Your task to perform on an android device: toggle sleep mode Image 0: 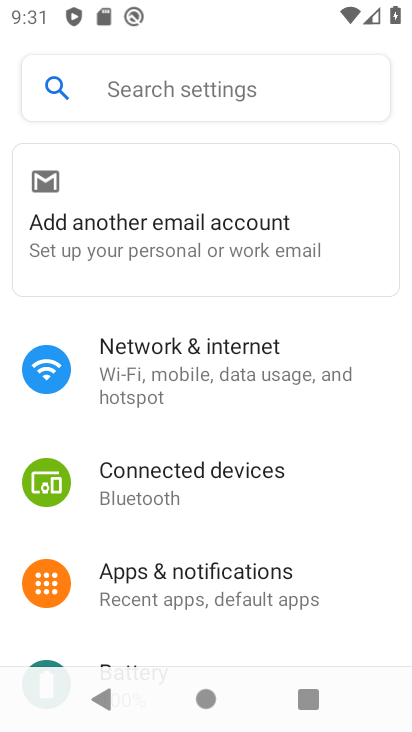
Step 0: drag from (289, 623) to (253, 224)
Your task to perform on an android device: toggle sleep mode Image 1: 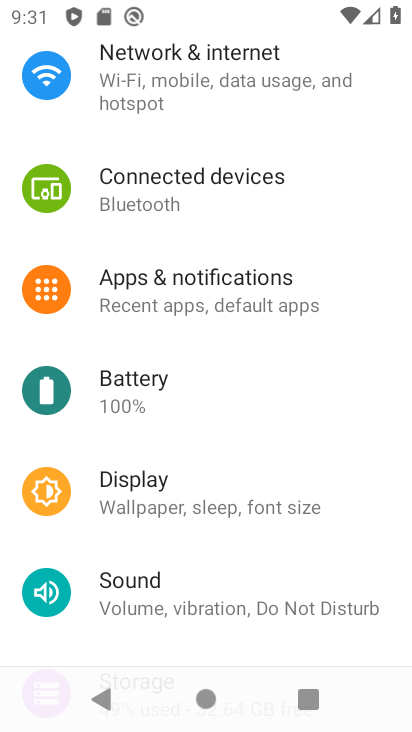
Step 1: click (235, 500)
Your task to perform on an android device: toggle sleep mode Image 2: 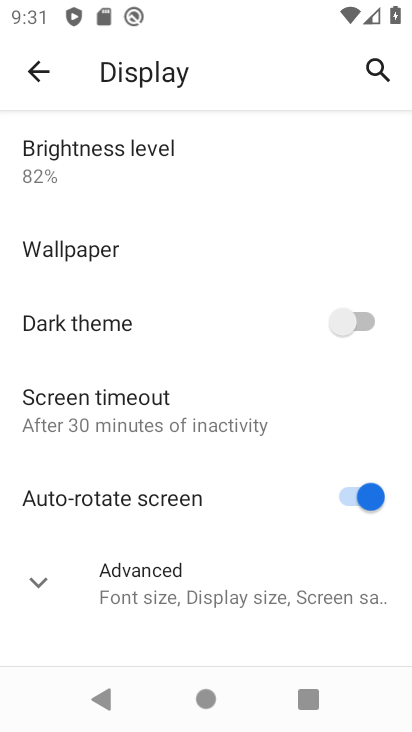
Step 2: click (206, 580)
Your task to perform on an android device: toggle sleep mode Image 3: 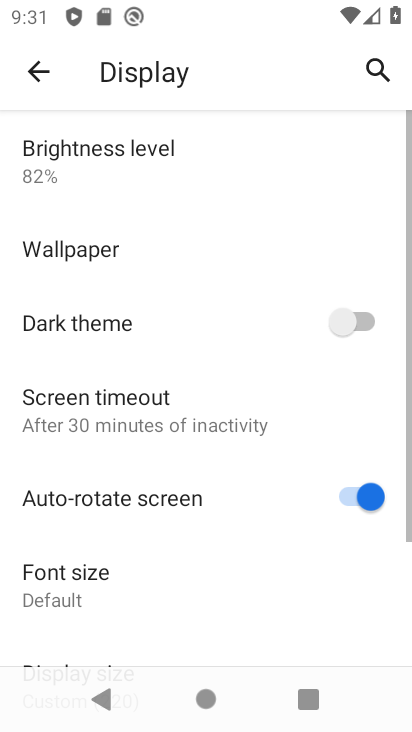
Step 3: task complete